Your task to perform on an android device: toggle notifications settings in the gmail app Image 0: 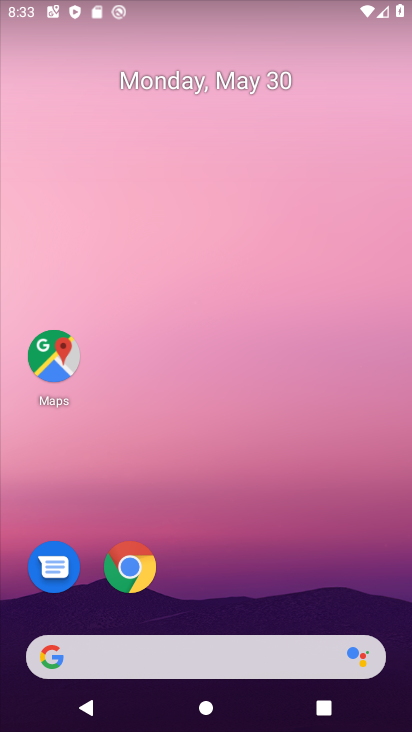
Step 0: drag from (177, 620) to (231, 96)
Your task to perform on an android device: toggle notifications settings in the gmail app Image 1: 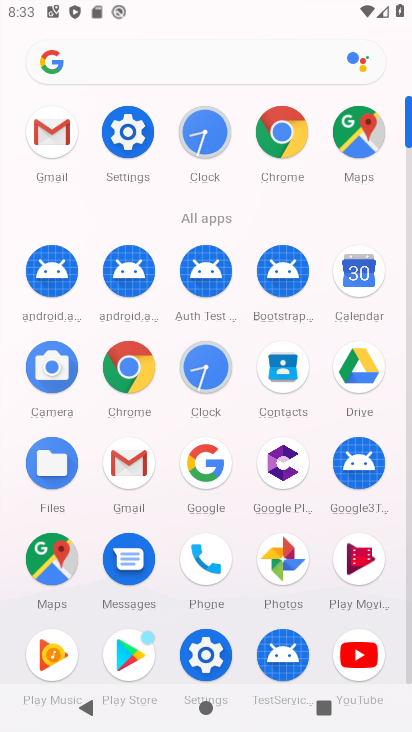
Step 1: click (126, 122)
Your task to perform on an android device: toggle notifications settings in the gmail app Image 2: 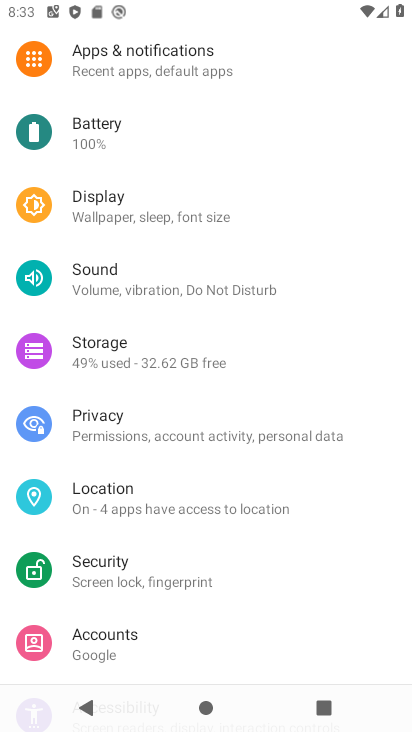
Step 2: click (148, 75)
Your task to perform on an android device: toggle notifications settings in the gmail app Image 3: 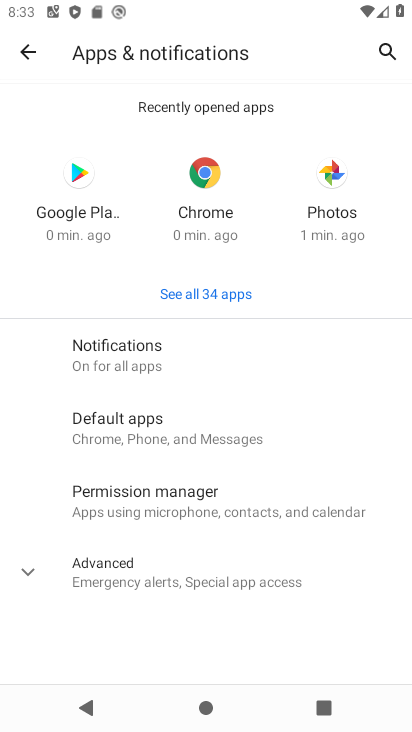
Step 3: click (225, 299)
Your task to perform on an android device: toggle notifications settings in the gmail app Image 4: 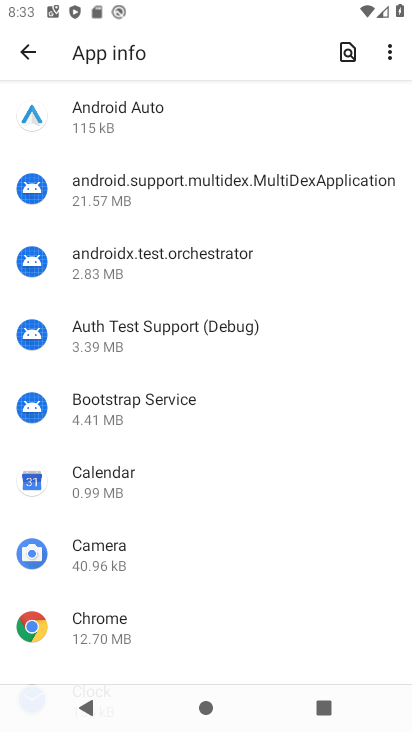
Step 4: drag from (173, 608) to (217, 119)
Your task to perform on an android device: toggle notifications settings in the gmail app Image 5: 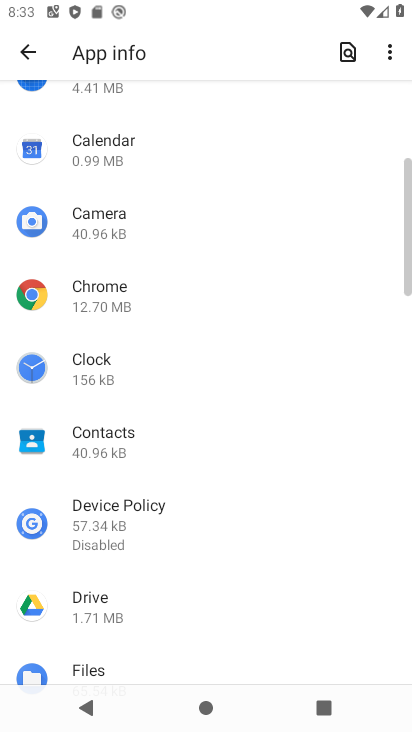
Step 5: drag from (123, 638) to (225, 133)
Your task to perform on an android device: toggle notifications settings in the gmail app Image 6: 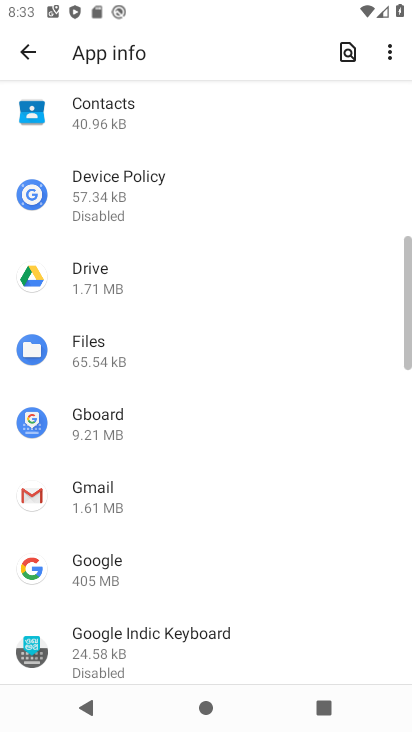
Step 6: click (76, 566)
Your task to perform on an android device: toggle notifications settings in the gmail app Image 7: 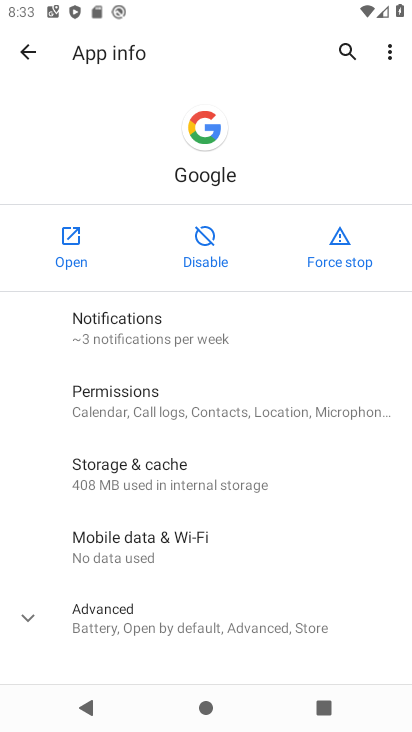
Step 7: click (204, 344)
Your task to perform on an android device: toggle notifications settings in the gmail app Image 8: 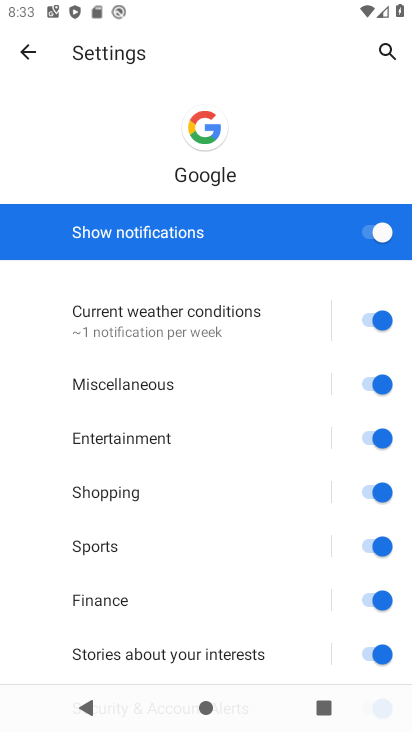
Step 8: click (381, 237)
Your task to perform on an android device: toggle notifications settings in the gmail app Image 9: 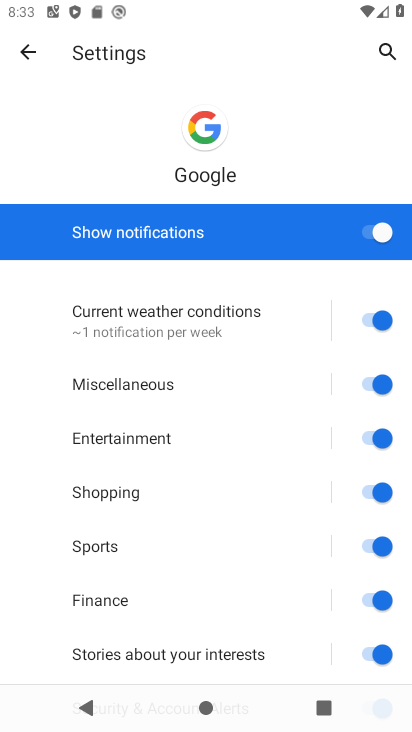
Step 9: click (381, 237)
Your task to perform on an android device: toggle notifications settings in the gmail app Image 10: 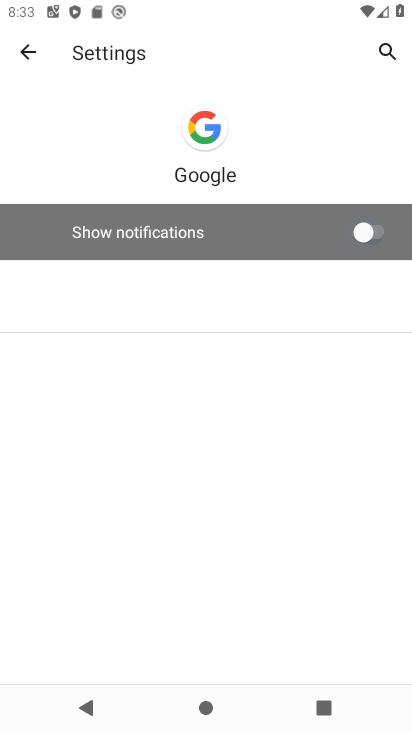
Step 10: click (381, 237)
Your task to perform on an android device: toggle notifications settings in the gmail app Image 11: 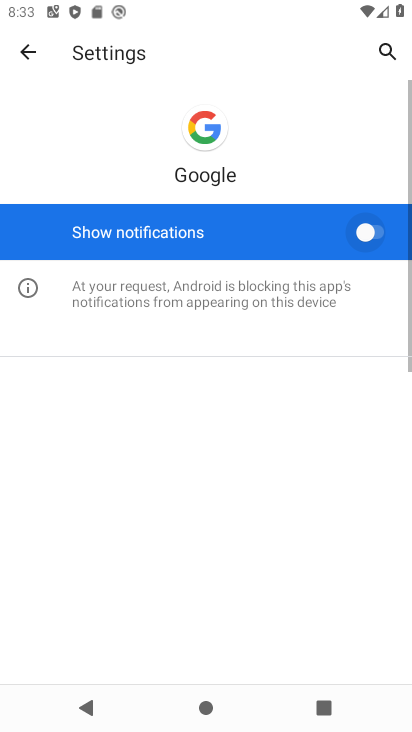
Step 11: click (381, 237)
Your task to perform on an android device: toggle notifications settings in the gmail app Image 12: 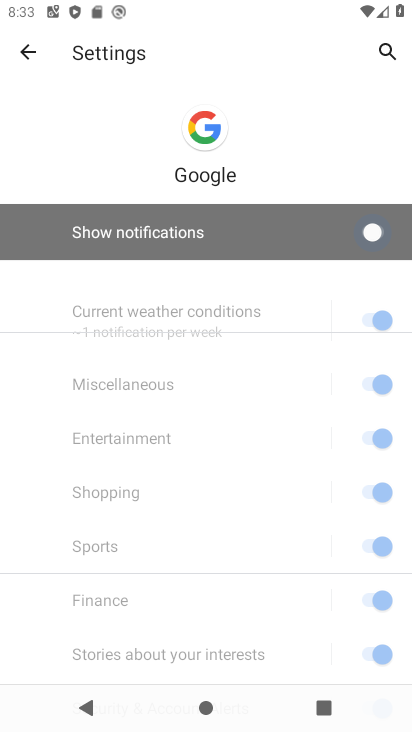
Step 12: click (381, 237)
Your task to perform on an android device: toggle notifications settings in the gmail app Image 13: 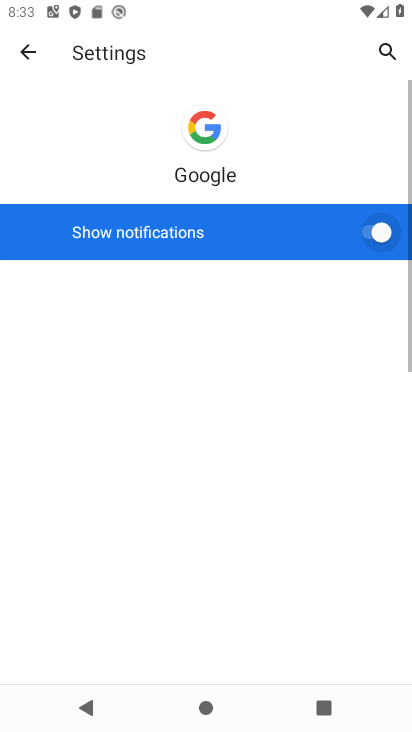
Step 13: click (381, 237)
Your task to perform on an android device: toggle notifications settings in the gmail app Image 14: 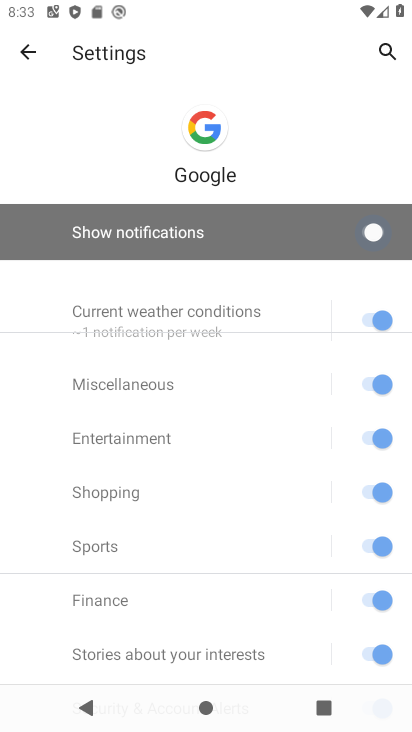
Step 14: click (381, 237)
Your task to perform on an android device: toggle notifications settings in the gmail app Image 15: 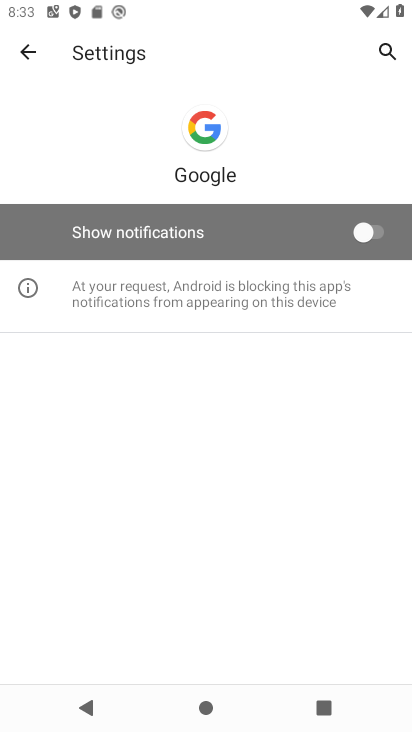
Step 15: task complete